Your task to perform on an android device: Add "logitech g502" to the cart on walmart, then select checkout. Image 0: 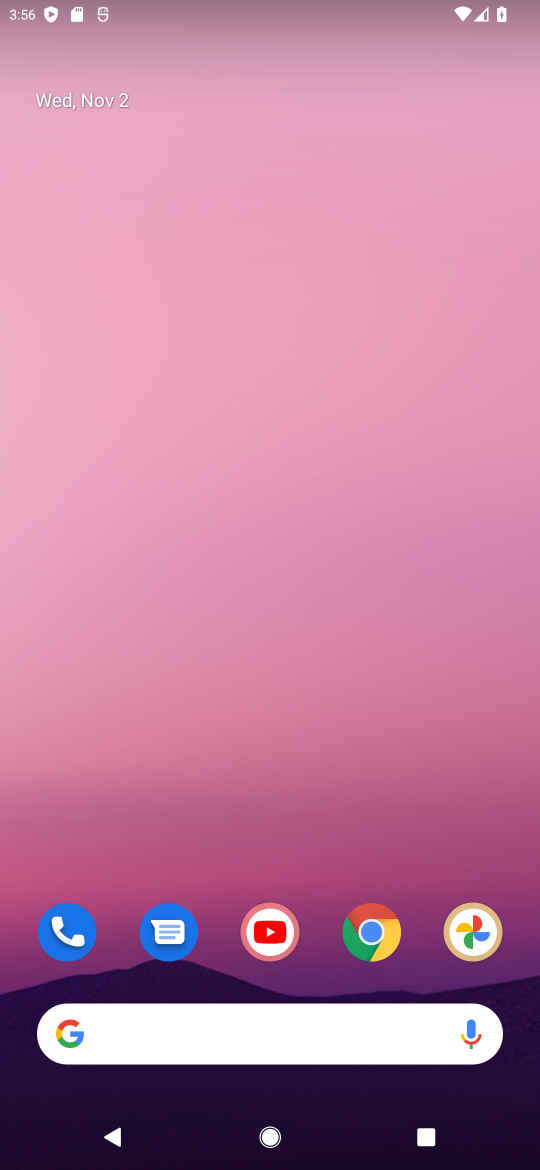
Step 0: click (368, 937)
Your task to perform on an android device: Add "logitech g502" to the cart on walmart, then select checkout. Image 1: 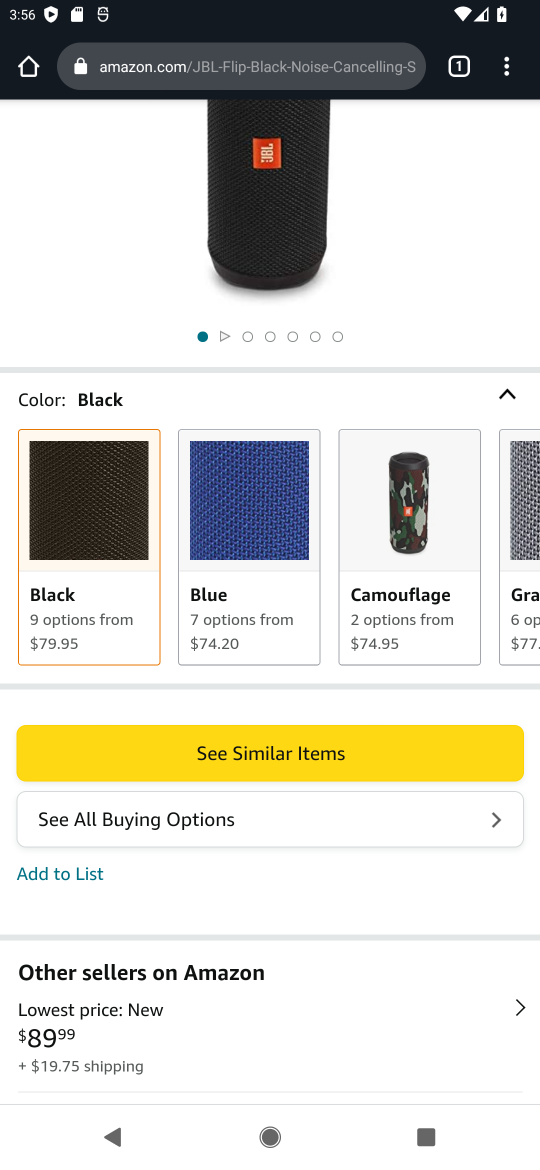
Step 1: click (159, 69)
Your task to perform on an android device: Add "logitech g502" to the cart on walmart, then select checkout. Image 2: 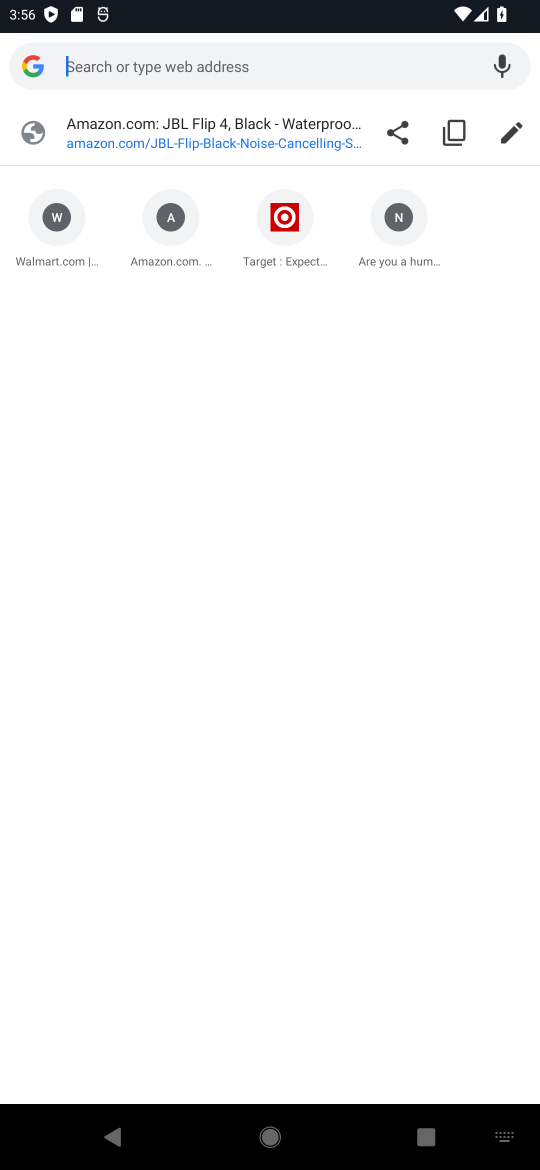
Step 2: type "walmart"
Your task to perform on an android device: Add "logitech g502" to the cart on walmart, then select checkout. Image 3: 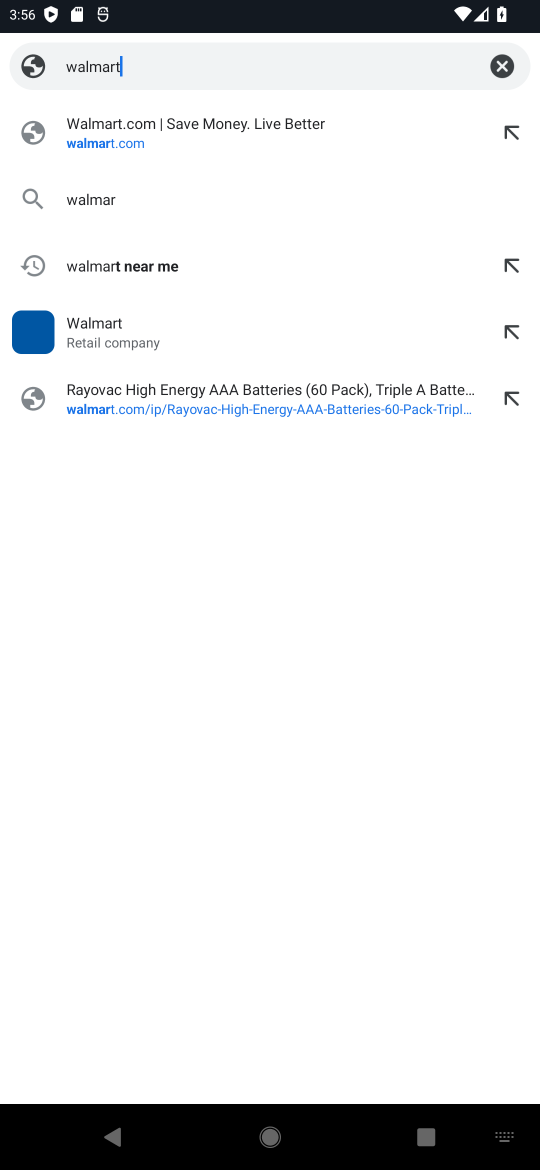
Step 3: press enter
Your task to perform on an android device: Add "logitech g502" to the cart on walmart, then select checkout. Image 4: 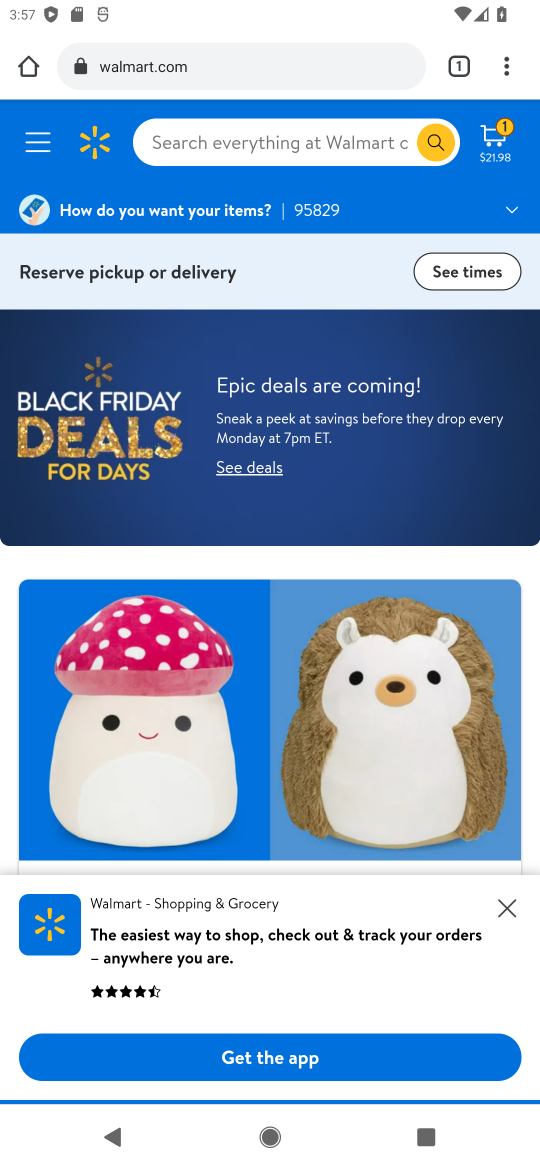
Step 4: click (176, 148)
Your task to perform on an android device: Add "logitech g502" to the cart on walmart, then select checkout. Image 5: 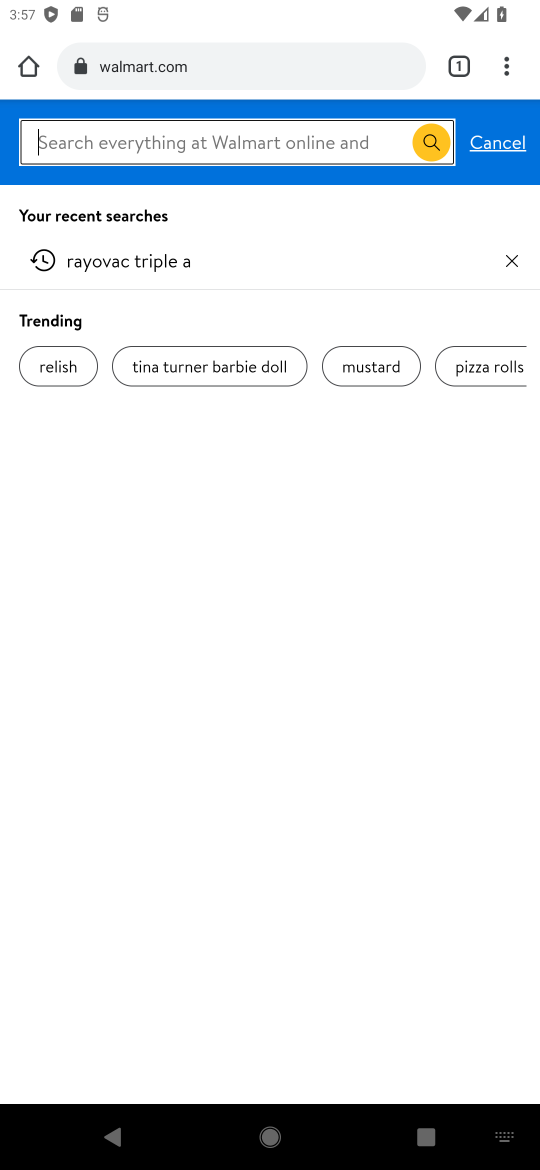
Step 5: type "logitech g502"
Your task to perform on an android device: Add "logitech g502" to the cart on walmart, then select checkout. Image 6: 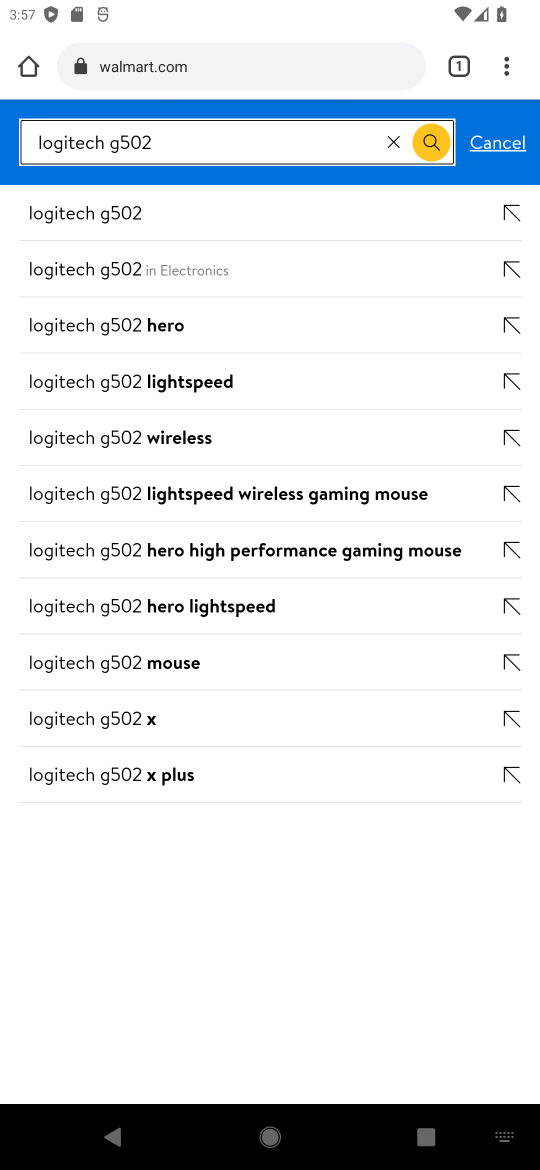
Step 6: press enter
Your task to perform on an android device: Add "logitech g502" to the cart on walmart, then select checkout. Image 7: 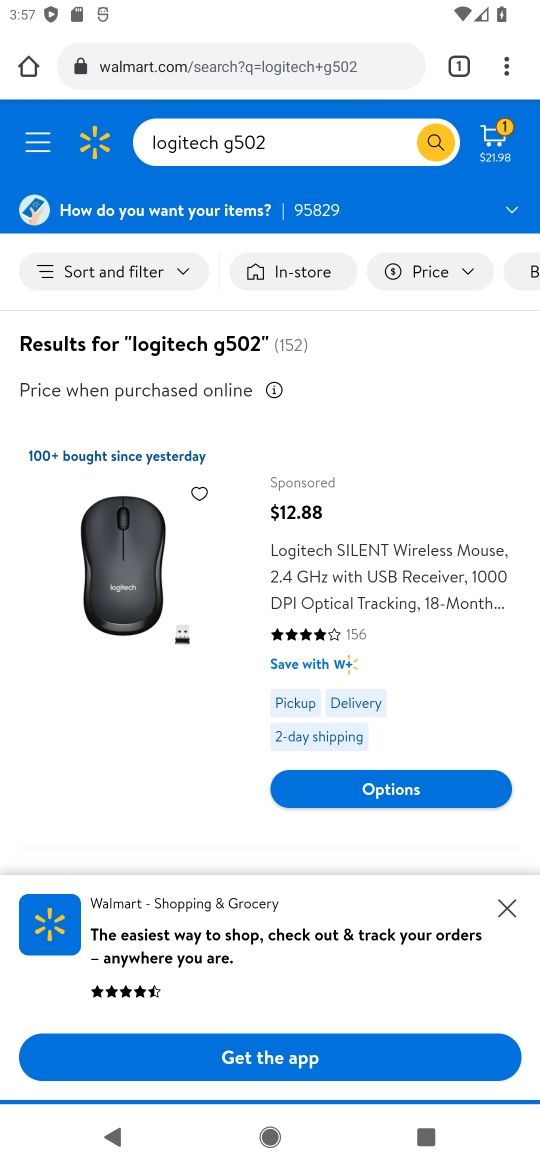
Step 7: click (502, 915)
Your task to perform on an android device: Add "logitech g502" to the cart on walmart, then select checkout. Image 8: 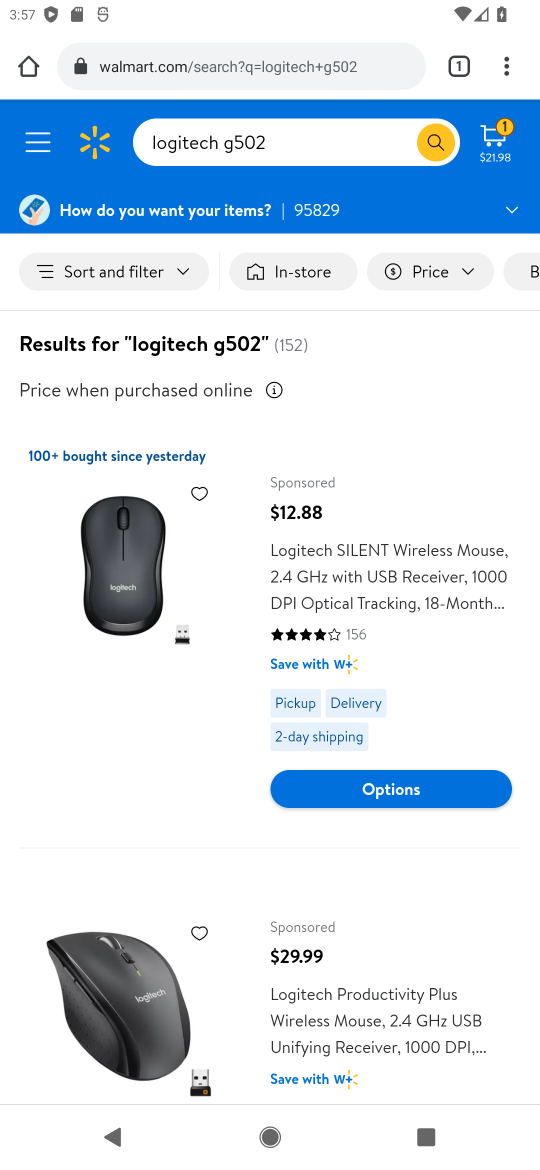
Step 8: drag from (216, 955) to (228, 832)
Your task to perform on an android device: Add "logitech g502" to the cart on walmart, then select checkout. Image 9: 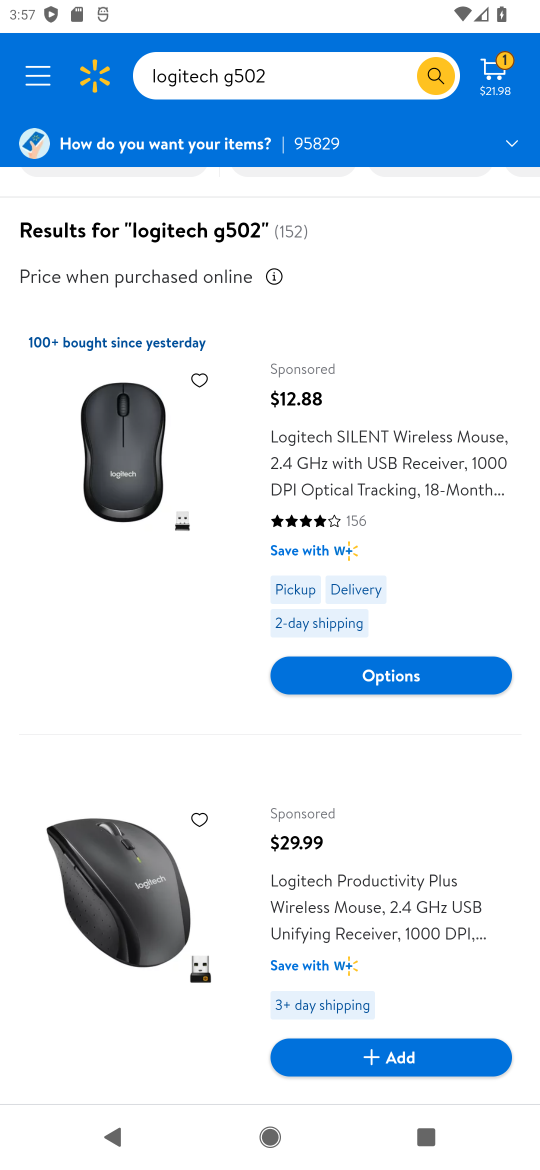
Step 9: drag from (425, 843) to (363, 312)
Your task to perform on an android device: Add "logitech g502" to the cart on walmart, then select checkout. Image 10: 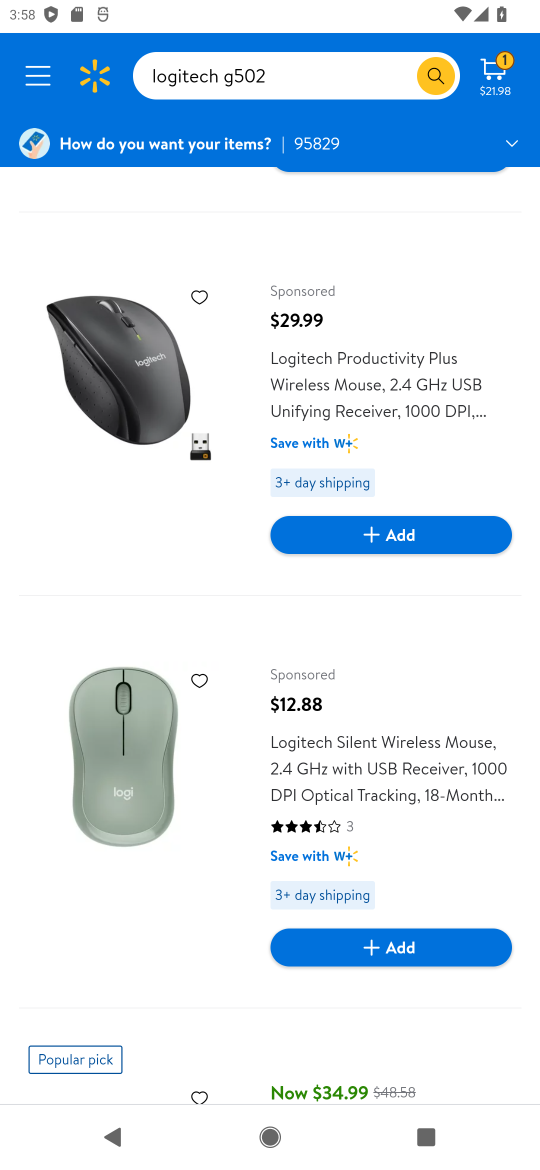
Step 10: drag from (352, 844) to (320, 666)
Your task to perform on an android device: Add "logitech g502" to the cart on walmart, then select checkout. Image 11: 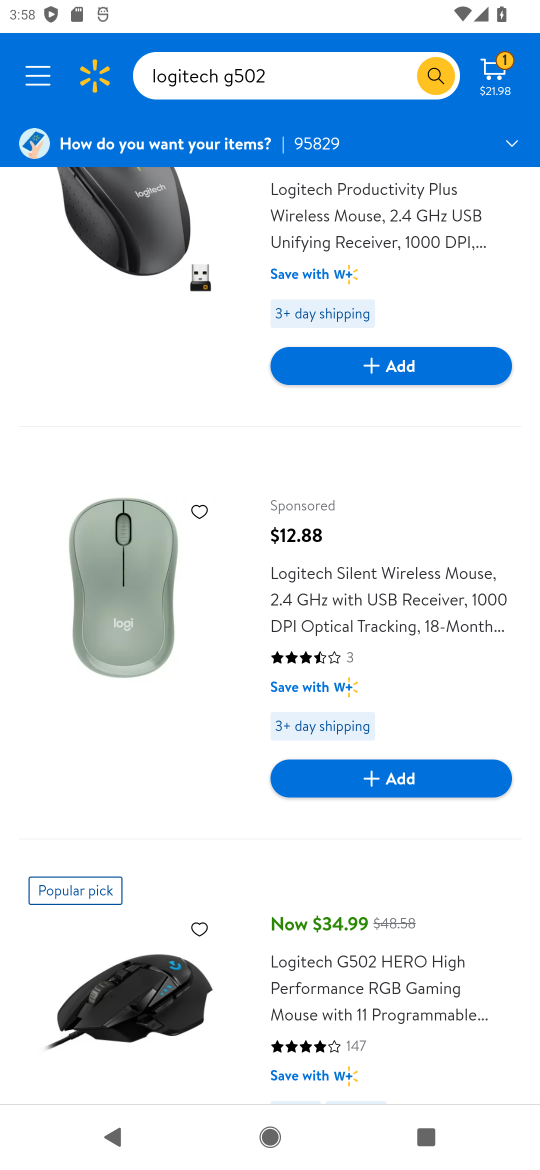
Step 11: drag from (330, 1086) to (327, 737)
Your task to perform on an android device: Add "logitech g502" to the cart on walmart, then select checkout. Image 12: 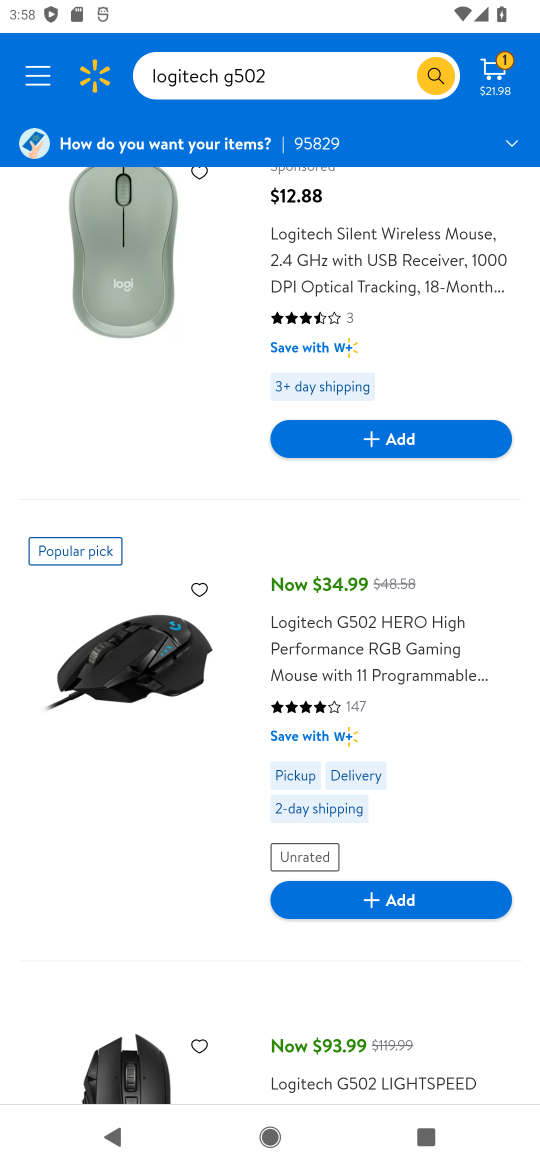
Step 12: click (351, 904)
Your task to perform on an android device: Add "logitech g502" to the cart on walmart, then select checkout. Image 13: 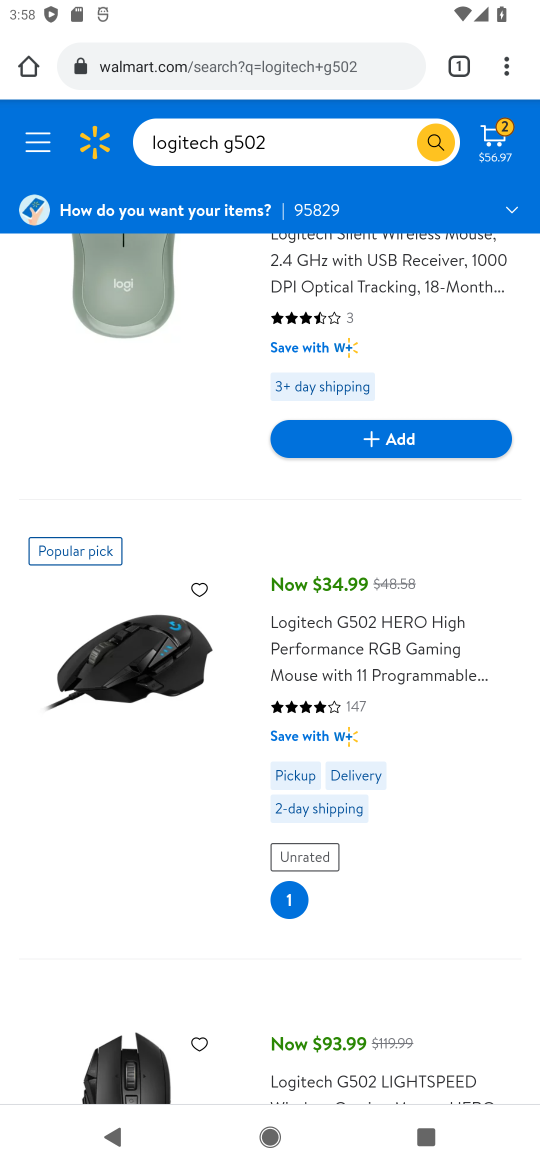
Step 13: click (109, 676)
Your task to perform on an android device: Add "logitech g502" to the cart on walmart, then select checkout. Image 14: 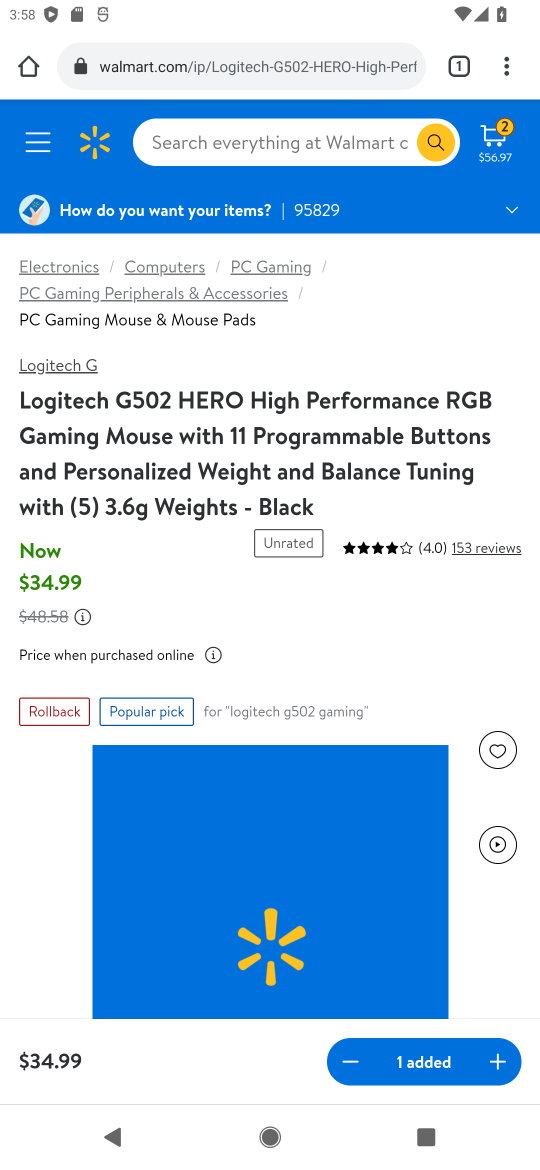
Step 14: click (502, 143)
Your task to perform on an android device: Add "logitech g502" to the cart on walmart, then select checkout. Image 15: 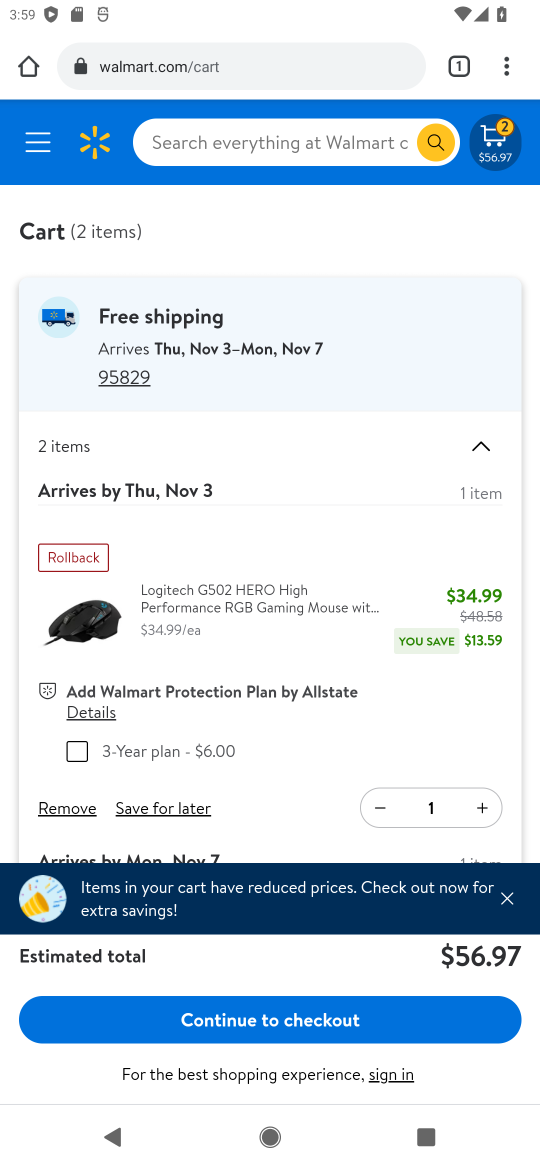
Step 15: click (305, 1023)
Your task to perform on an android device: Add "logitech g502" to the cart on walmart, then select checkout. Image 16: 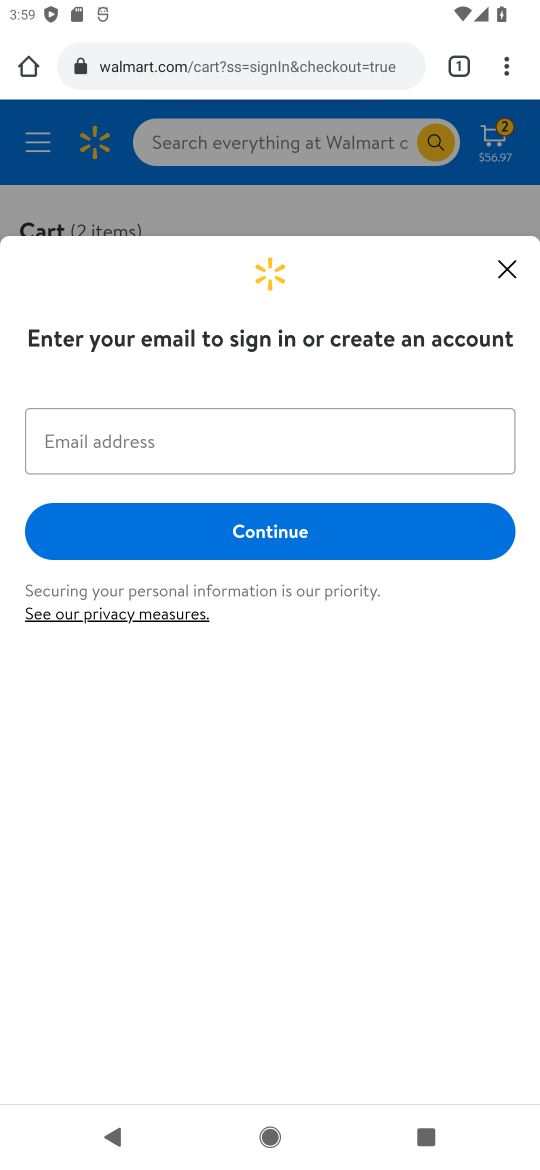
Step 16: task complete